Your task to perform on an android device: allow notifications from all sites in the chrome app Image 0: 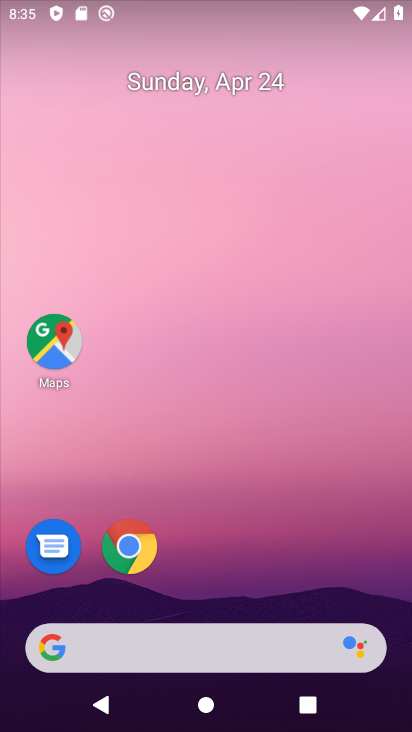
Step 0: click (141, 528)
Your task to perform on an android device: allow notifications from all sites in the chrome app Image 1: 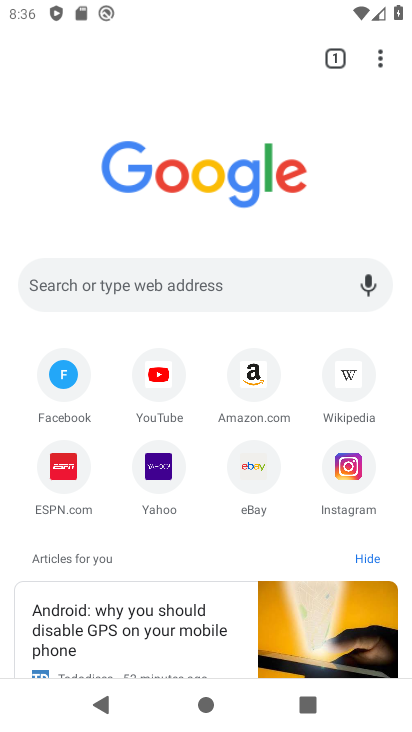
Step 1: click (378, 49)
Your task to perform on an android device: allow notifications from all sites in the chrome app Image 2: 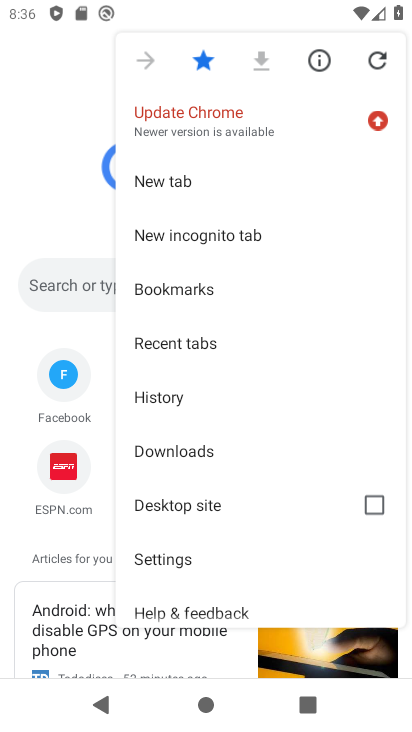
Step 2: click (267, 555)
Your task to perform on an android device: allow notifications from all sites in the chrome app Image 3: 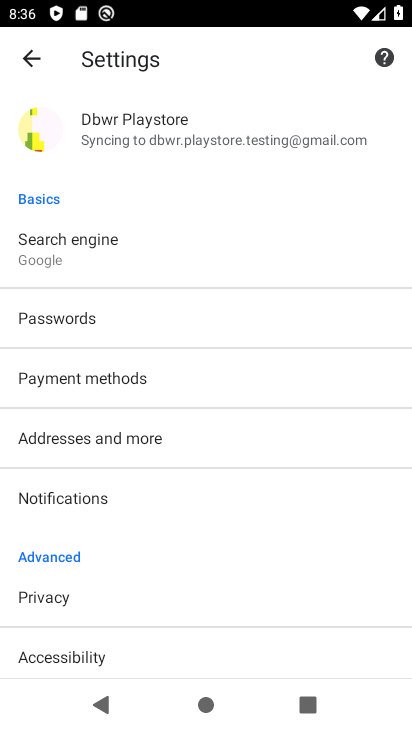
Step 3: drag from (207, 568) to (301, 163)
Your task to perform on an android device: allow notifications from all sites in the chrome app Image 4: 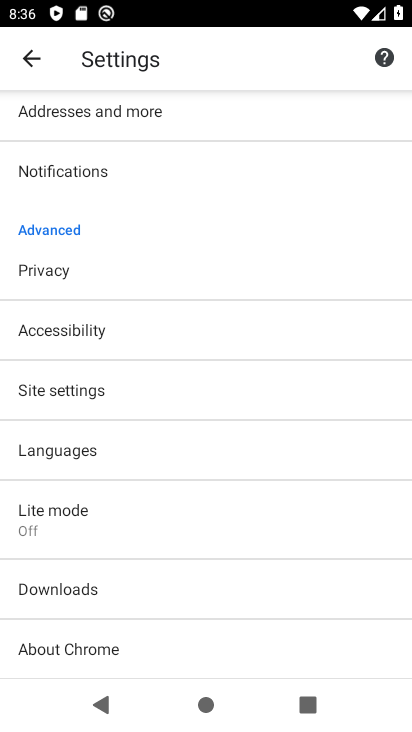
Step 4: click (162, 390)
Your task to perform on an android device: allow notifications from all sites in the chrome app Image 5: 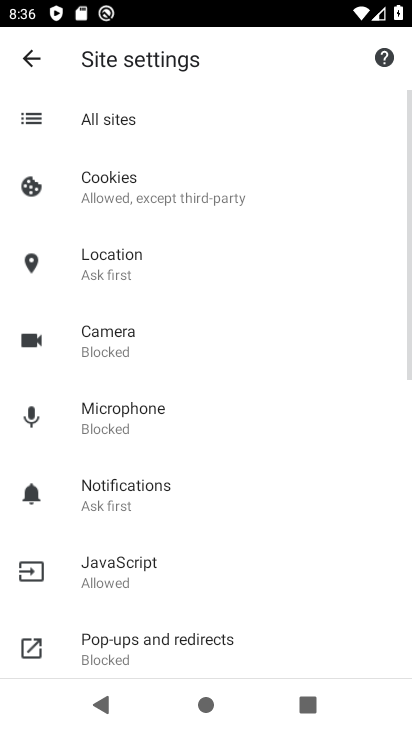
Step 5: click (188, 192)
Your task to perform on an android device: allow notifications from all sites in the chrome app Image 6: 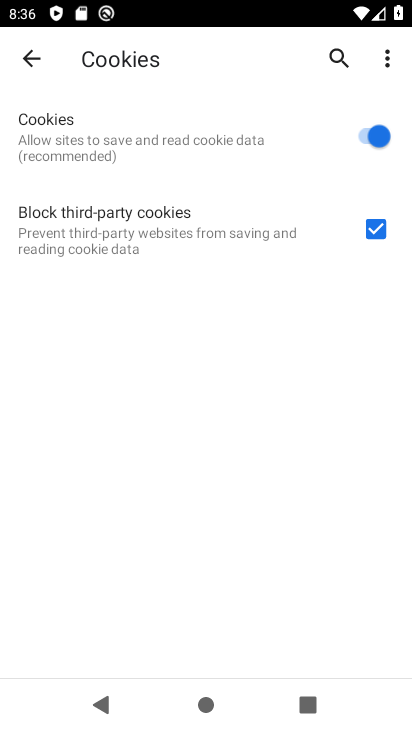
Step 6: task complete